Your task to perform on an android device: change notifications settings Image 0: 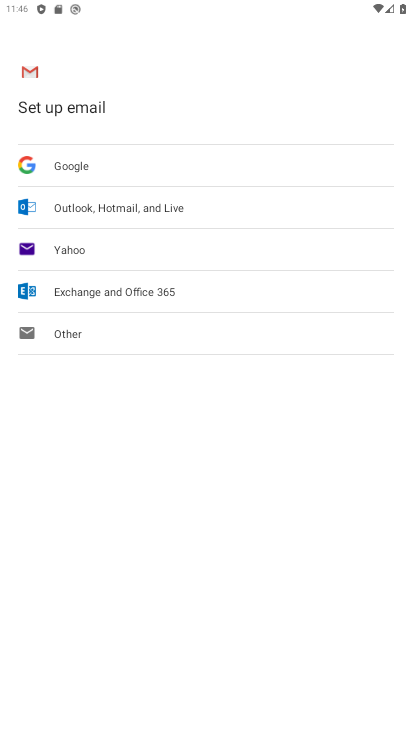
Step 0: press home button
Your task to perform on an android device: change notifications settings Image 1: 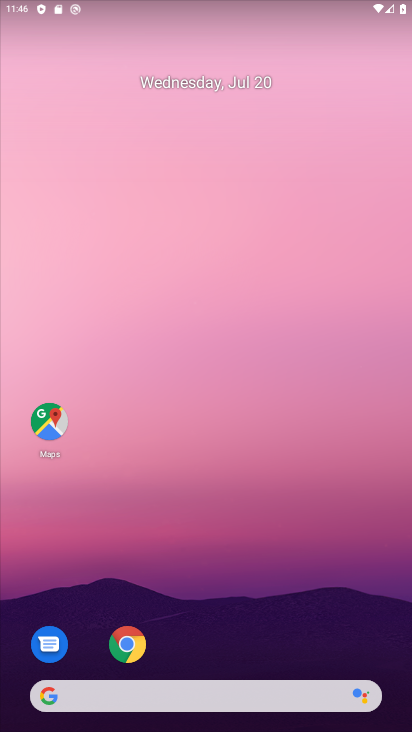
Step 1: drag from (307, 565) to (271, 218)
Your task to perform on an android device: change notifications settings Image 2: 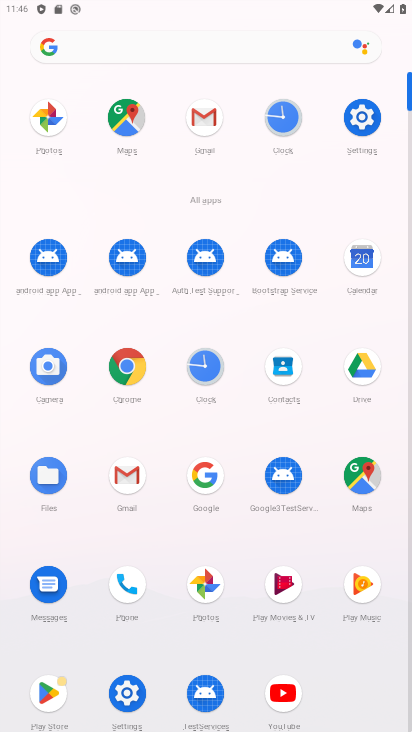
Step 2: click (359, 129)
Your task to perform on an android device: change notifications settings Image 3: 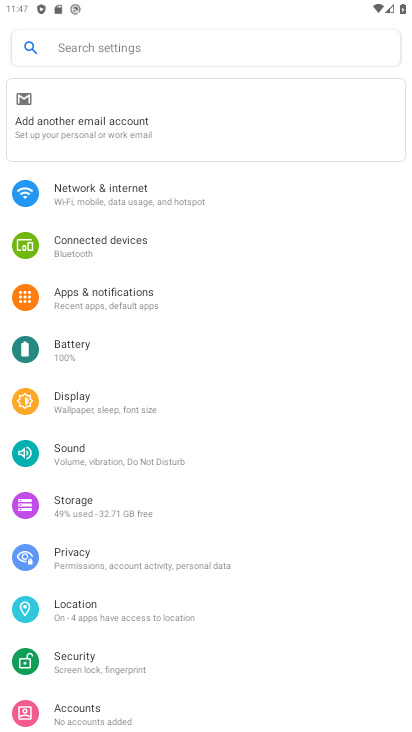
Step 3: click (133, 294)
Your task to perform on an android device: change notifications settings Image 4: 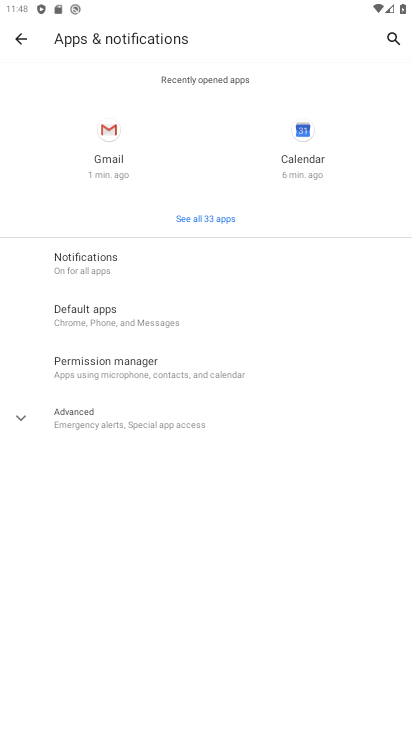
Step 4: task complete